Your task to perform on an android device: toggle notifications settings in the gmail app Image 0: 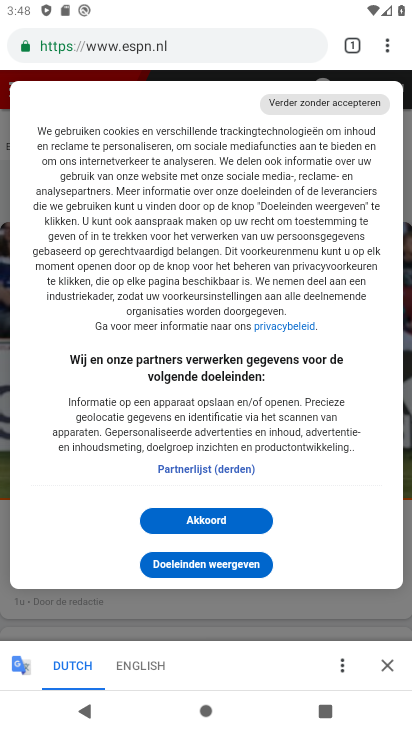
Step 0: press home button
Your task to perform on an android device: toggle notifications settings in the gmail app Image 1: 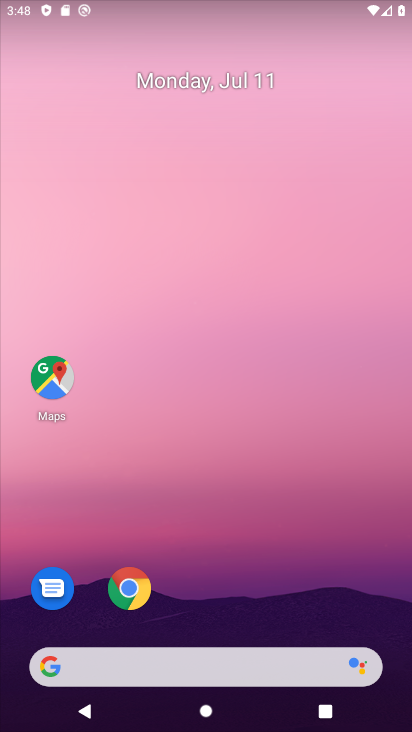
Step 1: drag from (330, 581) to (382, 3)
Your task to perform on an android device: toggle notifications settings in the gmail app Image 2: 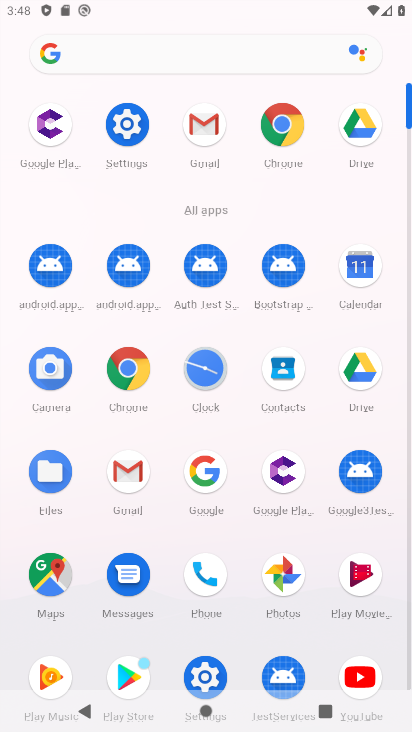
Step 2: click (123, 129)
Your task to perform on an android device: toggle notifications settings in the gmail app Image 3: 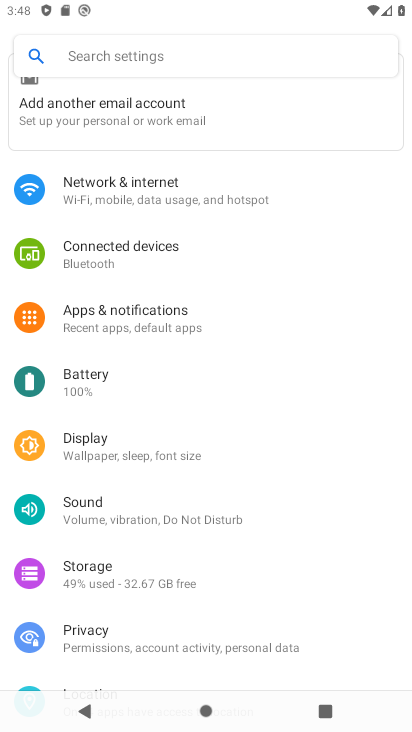
Step 3: click (158, 315)
Your task to perform on an android device: toggle notifications settings in the gmail app Image 4: 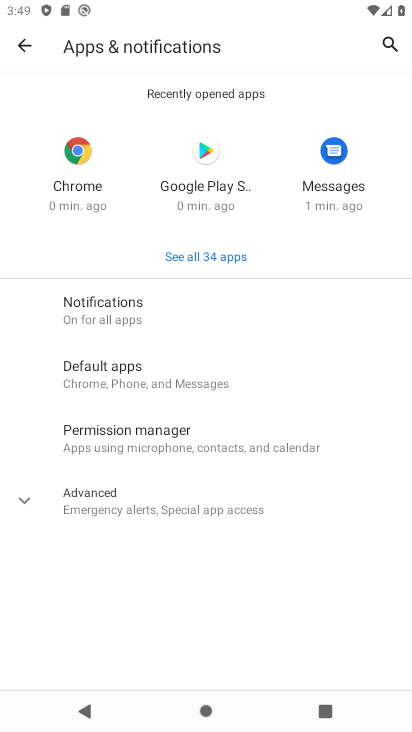
Step 4: click (108, 311)
Your task to perform on an android device: toggle notifications settings in the gmail app Image 5: 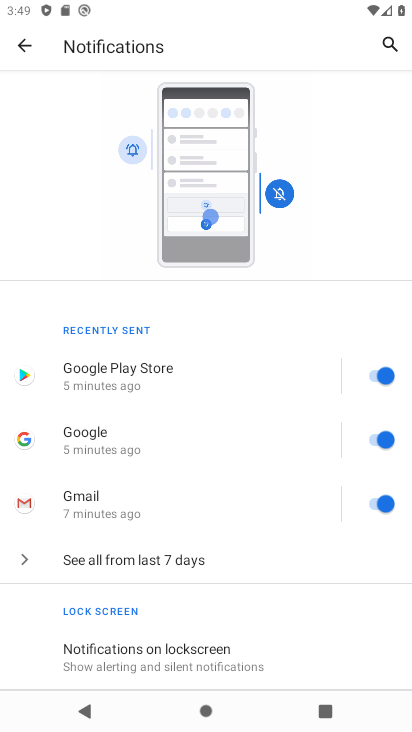
Step 5: drag from (196, 665) to (277, 225)
Your task to perform on an android device: toggle notifications settings in the gmail app Image 6: 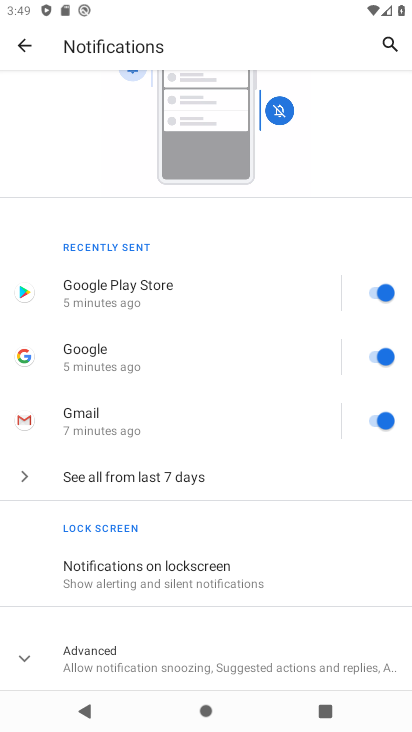
Step 6: click (199, 581)
Your task to perform on an android device: toggle notifications settings in the gmail app Image 7: 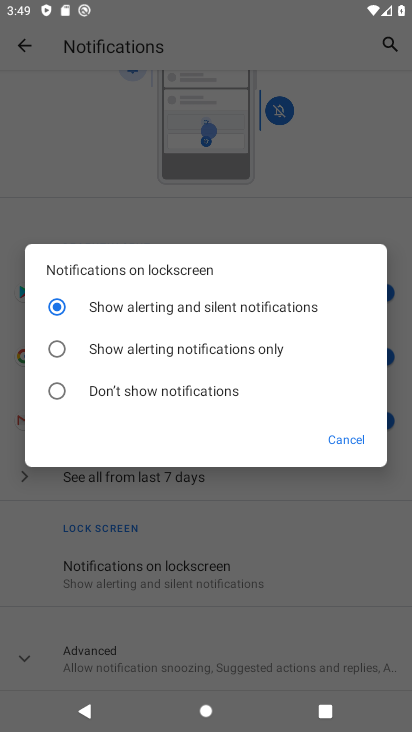
Step 7: click (55, 345)
Your task to perform on an android device: toggle notifications settings in the gmail app Image 8: 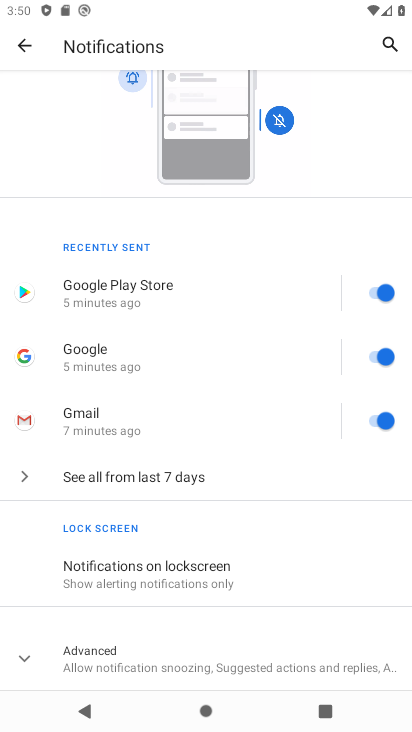
Step 8: task complete